Your task to perform on an android device: see creations saved in the google photos Image 0: 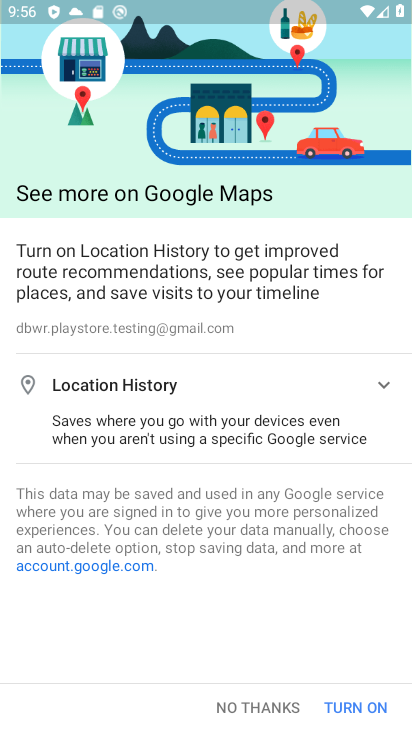
Step 0: press home button
Your task to perform on an android device: see creations saved in the google photos Image 1: 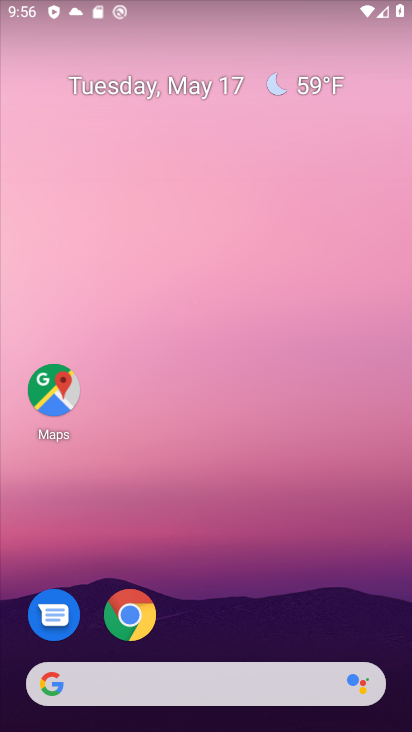
Step 1: drag from (275, 611) to (140, 7)
Your task to perform on an android device: see creations saved in the google photos Image 2: 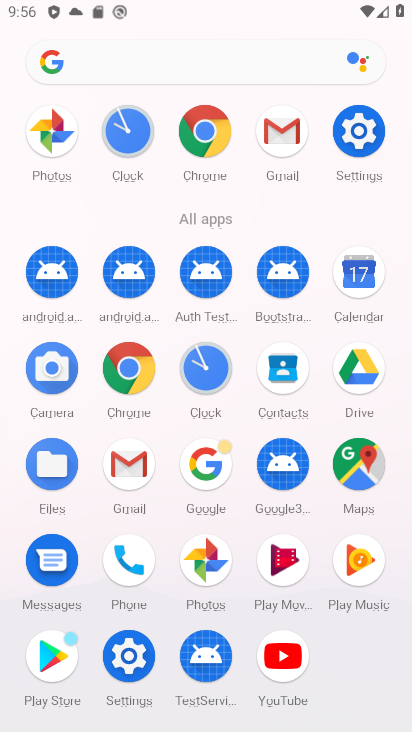
Step 2: click (208, 585)
Your task to perform on an android device: see creations saved in the google photos Image 3: 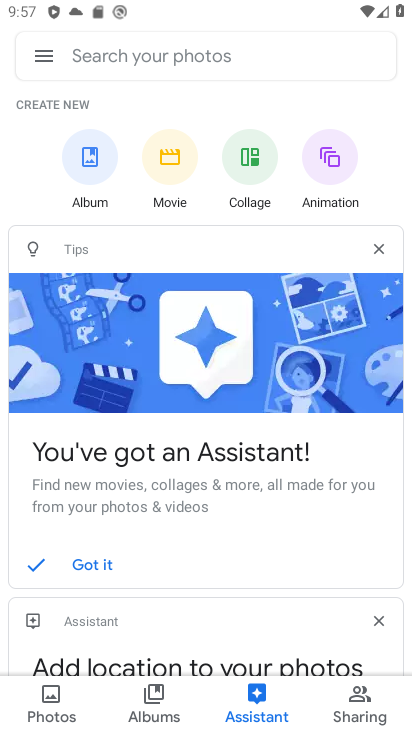
Step 3: click (52, 59)
Your task to perform on an android device: see creations saved in the google photos Image 4: 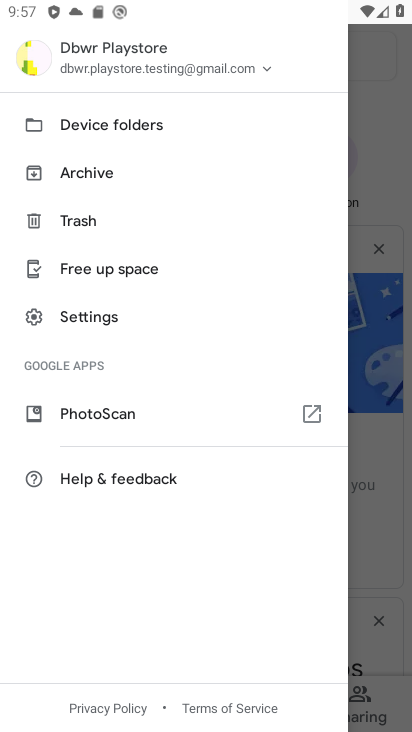
Step 4: press back button
Your task to perform on an android device: see creations saved in the google photos Image 5: 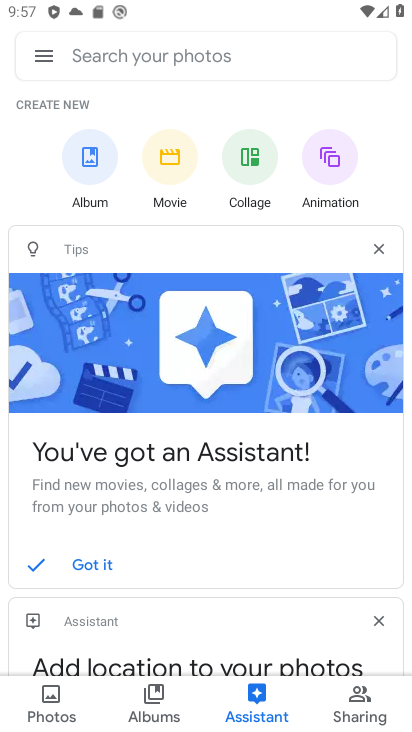
Step 5: click (129, 52)
Your task to perform on an android device: see creations saved in the google photos Image 6: 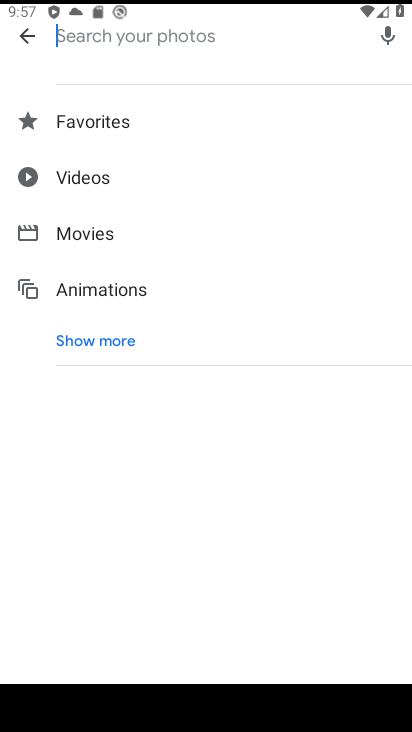
Step 6: click (100, 339)
Your task to perform on an android device: see creations saved in the google photos Image 7: 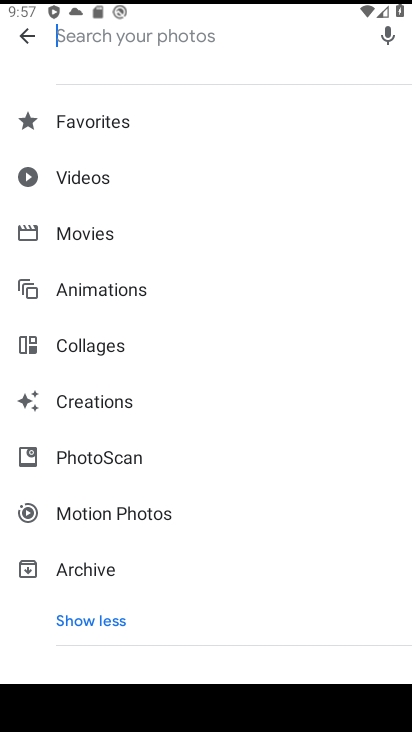
Step 7: click (105, 406)
Your task to perform on an android device: see creations saved in the google photos Image 8: 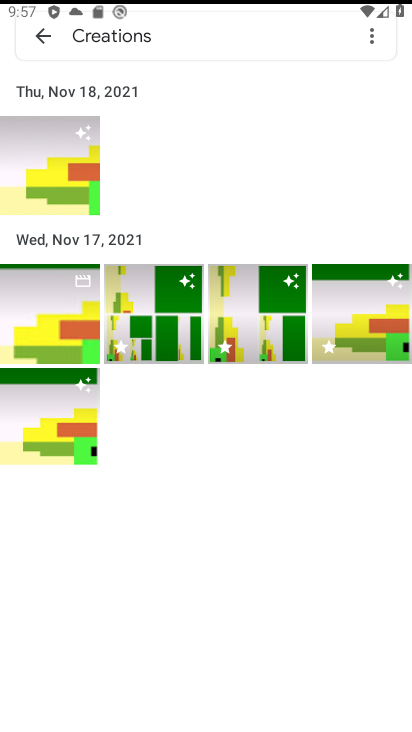
Step 8: task complete